Your task to perform on an android device: choose inbox layout in the gmail app Image 0: 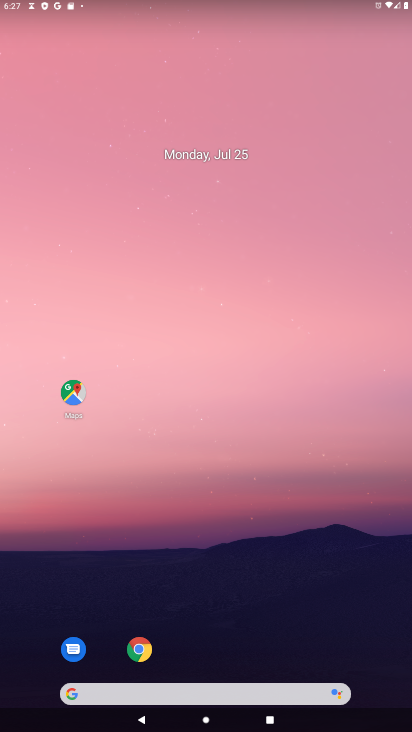
Step 0: drag from (265, 678) to (292, 41)
Your task to perform on an android device: choose inbox layout in the gmail app Image 1: 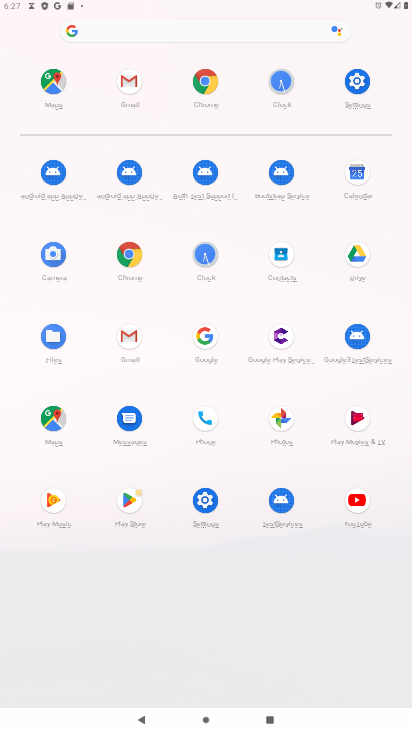
Step 1: click (134, 345)
Your task to perform on an android device: choose inbox layout in the gmail app Image 2: 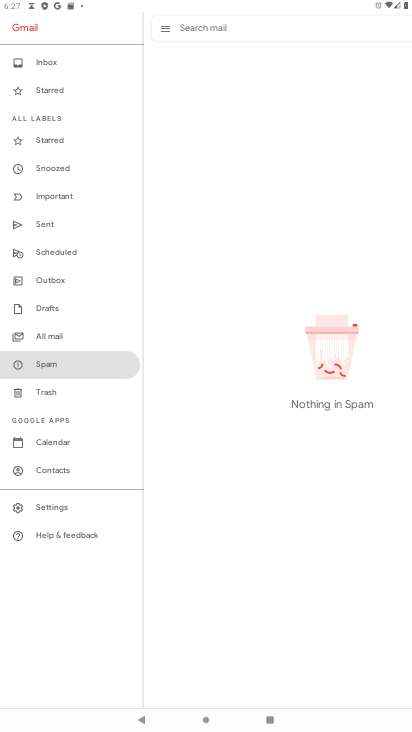
Step 2: click (76, 503)
Your task to perform on an android device: choose inbox layout in the gmail app Image 3: 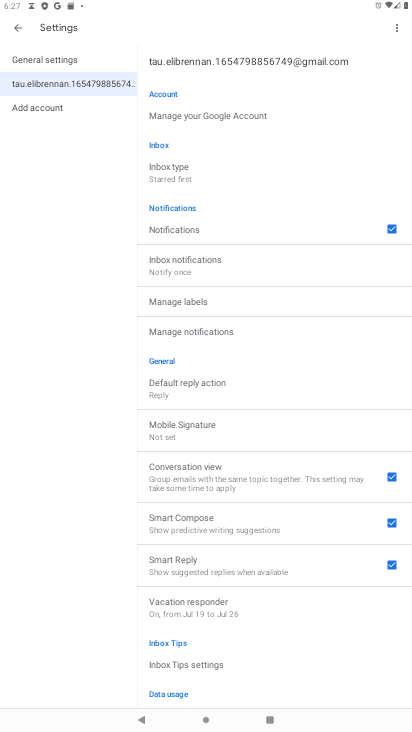
Step 3: click (215, 170)
Your task to perform on an android device: choose inbox layout in the gmail app Image 4: 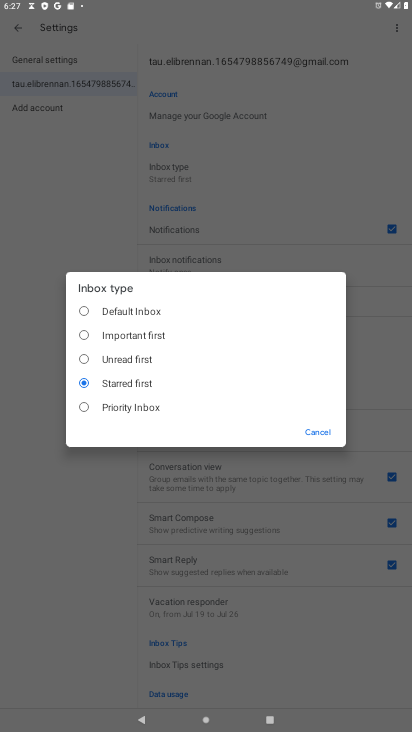
Step 4: click (88, 310)
Your task to perform on an android device: choose inbox layout in the gmail app Image 5: 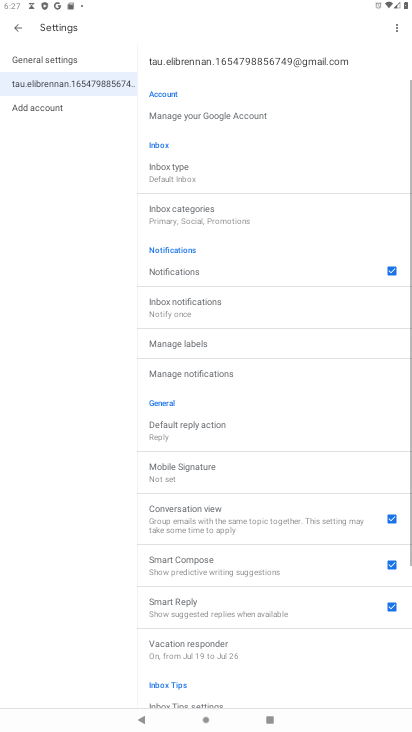
Step 5: task complete